Your task to perform on an android device: star an email in the gmail app Image 0: 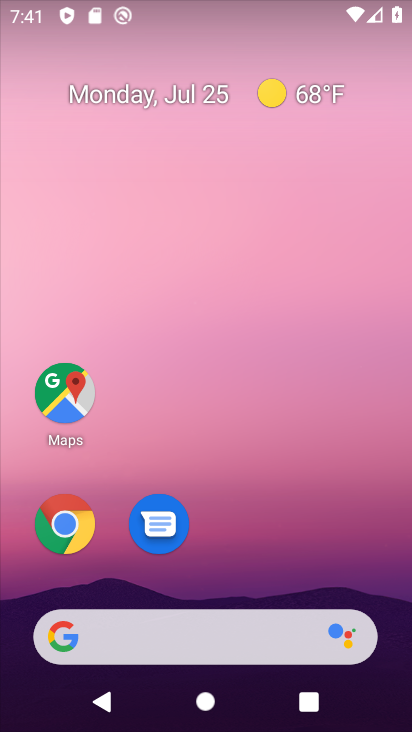
Step 0: drag from (310, 546) to (325, 43)
Your task to perform on an android device: star an email in the gmail app Image 1: 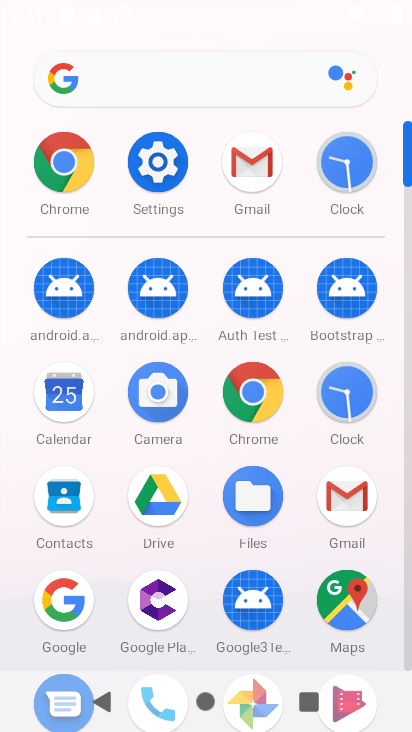
Step 1: click (249, 153)
Your task to perform on an android device: star an email in the gmail app Image 2: 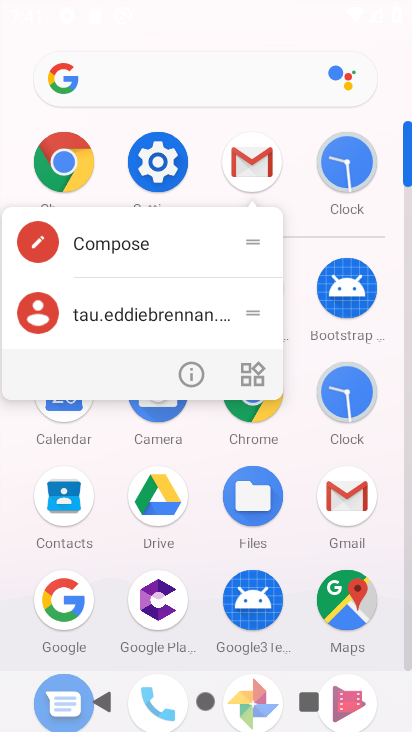
Step 2: click (249, 152)
Your task to perform on an android device: star an email in the gmail app Image 3: 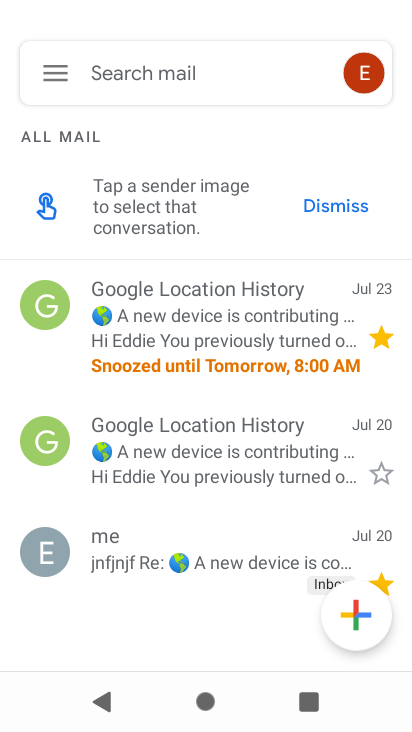
Step 3: click (383, 474)
Your task to perform on an android device: star an email in the gmail app Image 4: 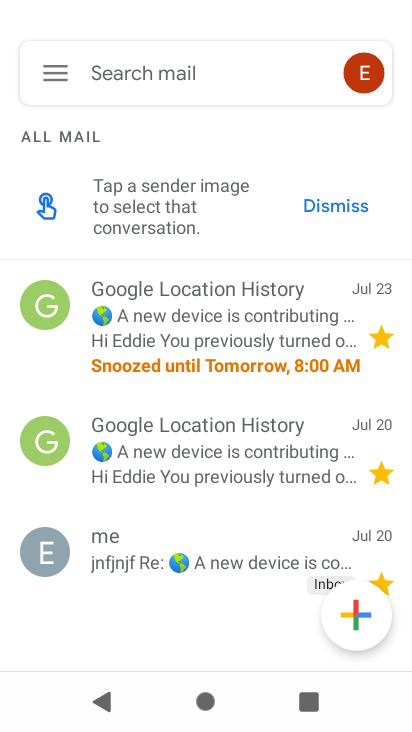
Step 4: task complete